Your task to perform on an android device: see sites visited before in the chrome app Image 0: 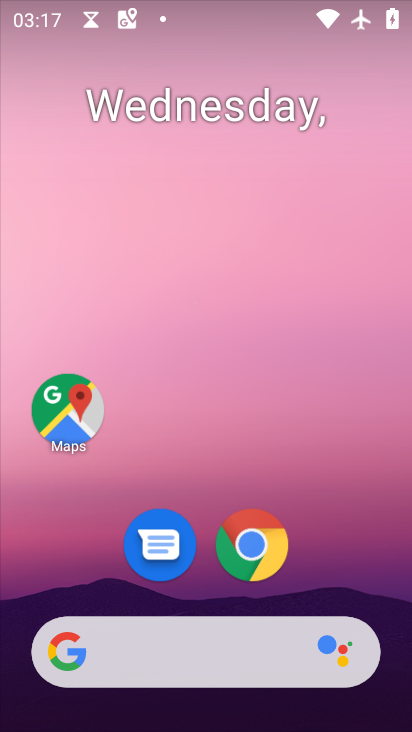
Step 0: click (253, 556)
Your task to perform on an android device: see sites visited before in the chrome app Image 1: 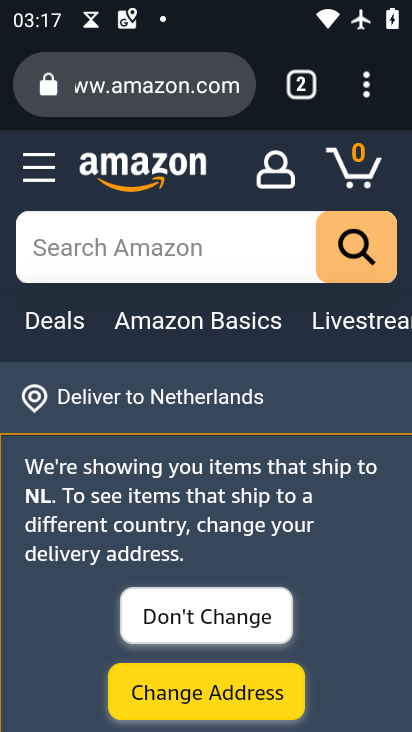
Step 1: task complete